Your task to perform on an android device: install app "eBay: The shopping marketplace" Image 0: 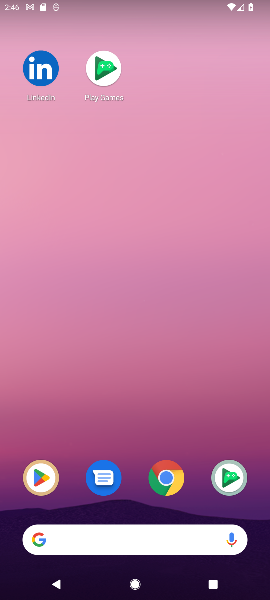
Step 0: drag from (120, 486) to (104, 255)
Your task to perform on an android device: install app "eBay: The shopping marketplace" Image 1: 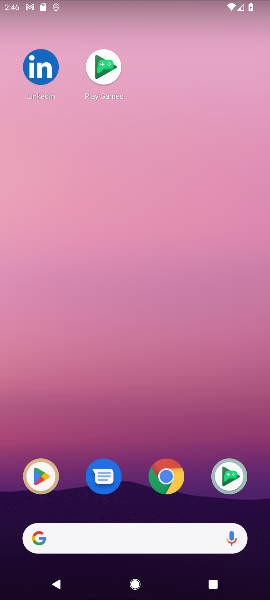
Step 1: drag from (113, 481) to (109, 253)
Your task to perform on an android device: install app "eBay: The shopping marketplace" Image 2: 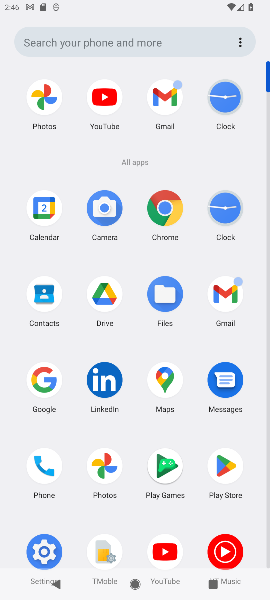
Step 2: drag from (150, 520) to (145, 318)
Your task to perform on an android device: install app "eBay: The shopping marketplace" Image 3: 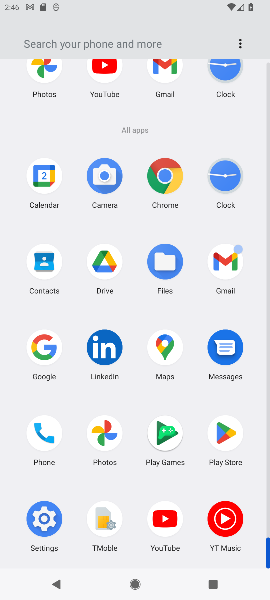
Step 3: click (225, 433)
Your task to perform on an android device: install app "eBay: The shopping marketplace" Image 4: 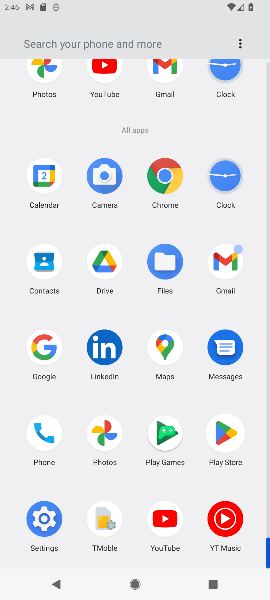
Step 4: click (225, 433)
Your task to perform on an android device: install app "eBay: The shopping marketplace" Image 5: 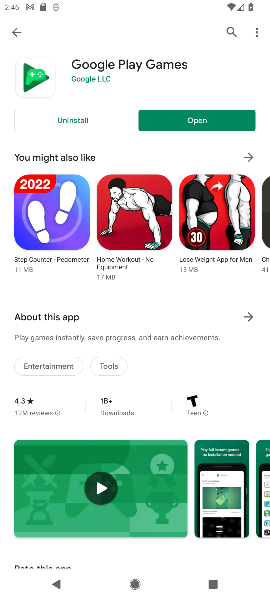
Step 5: click (225, 433)
Your task to perform on an android device: install app "eBay: The shopping marketplace" Image 6: 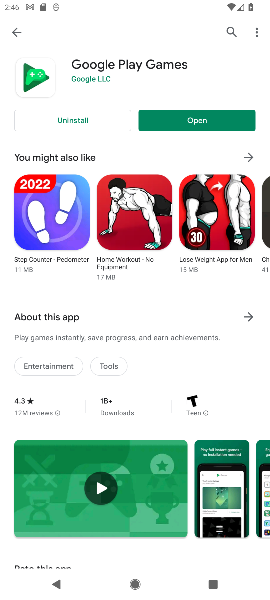
Step 6: click (226, 432)
Your task to perform on an android device: install app "eBay: The shopping marketplace" Image 7: 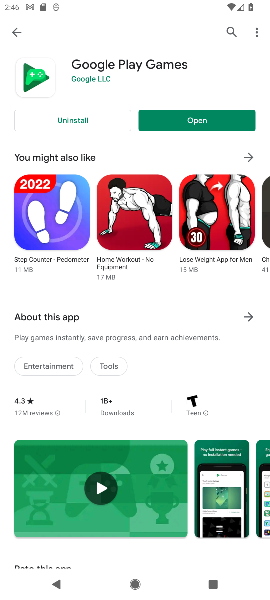
Step 7: click (22, 27)
Your task to perform on an android device: install app "eBay: The shopping marketplace" Image 8: 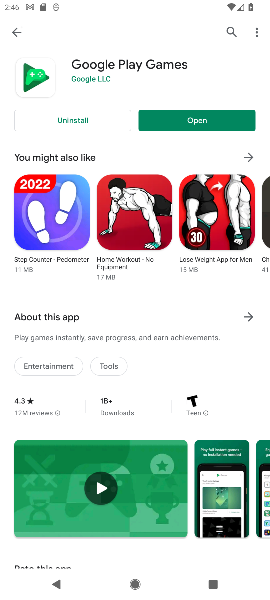
Step 8: click (20, 27)
Your task to perform on an android device: install app "eBay: The shopping marketplace" Image 9: 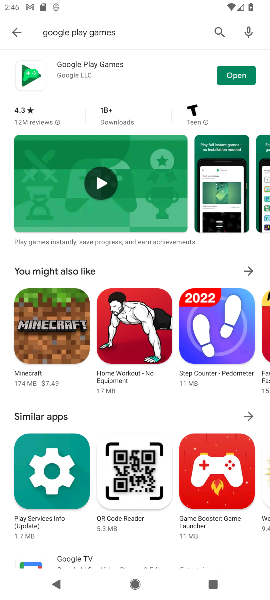
Step 9: click (51, 23)
Your task to perform on an android device: install app "eBay: The shopping marketplace" Image 10: 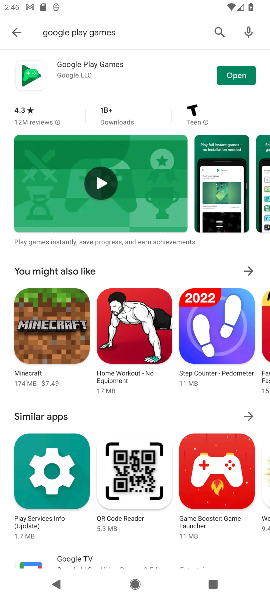
Step 10: click (55, 28)
Your task to perform on an android device: install app "eBay: The shopping marketplace" Image 11: 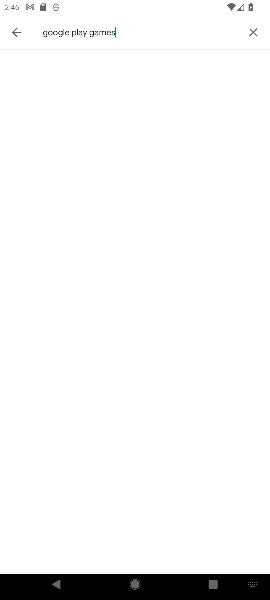
Step 11: click (55, 28)
Your task to perform on an android device: install app "eBay: The shopping marketplace" Image 12: 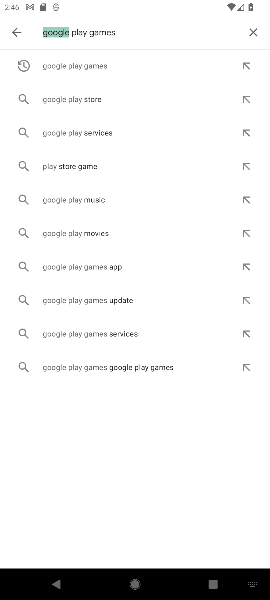
Step 12: click (55, 28)
Your task to perform on an android device: install app "eBay: The shopping marketplace" Image 13: 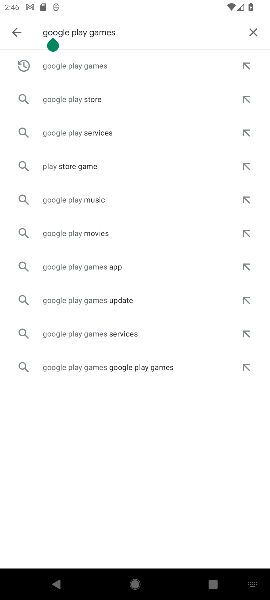
Step 13: click (251, 34)
Your task to perform on an android device: install app "eBay: The shopping marketplace" Image 14: 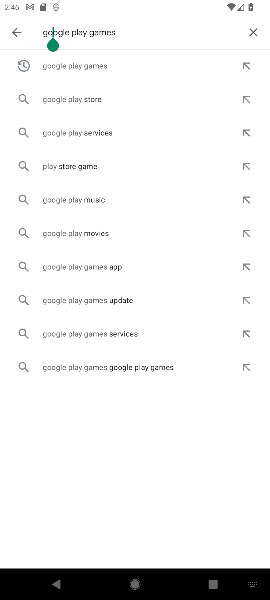
Step 14: click (250, 35)
Your task to perform on an android device: install app "eBay: The shopping marketplace" Image 15: 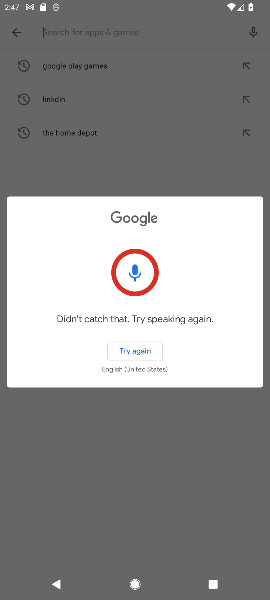
Step 15: click (153, 164)
Your task to perform on an android device: install app "eBay: The shopping marketplace" Image 16: 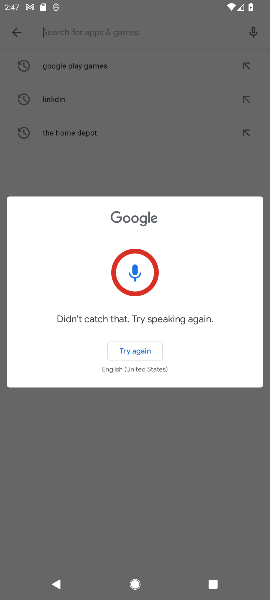
Step 16: click (153, 164)
Your task to perform on an android device: install app "eBay: The shopping marketplace" Image 17: 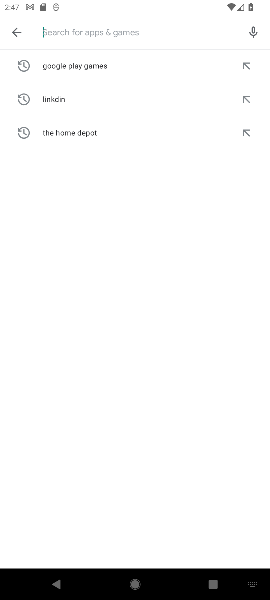
Step 17: click (154, 166)
Your task to perform on an android device: install app "eBay: The shopping marketplace" Image 18: 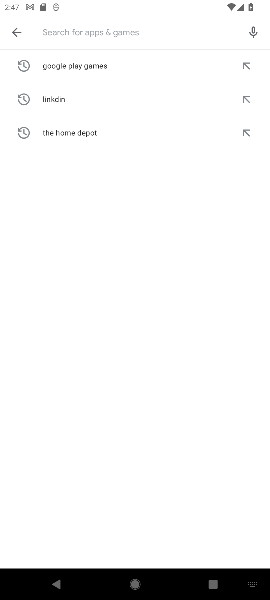
Step 18: type "ebay"
Your task to perform on an android device: install app "eBay: The shopping marketplace" Image 19: 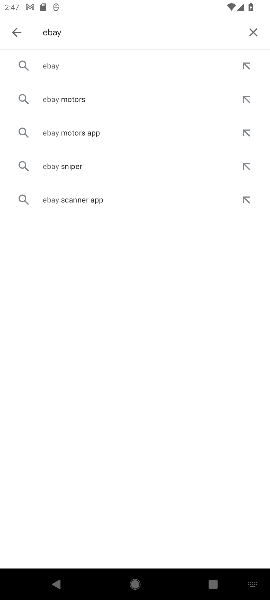
Step 19: click (42, 67)
Your task to perform on an android device: install app "eBay: The shopping marketplace" Image 20: 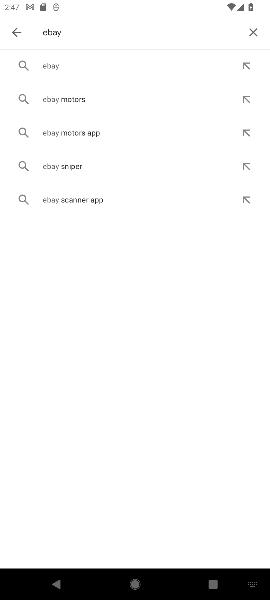
Step 20: click (42, 67)
Your task to perform on an android device: install app "eBay: The shopping marketplace" Image 21: 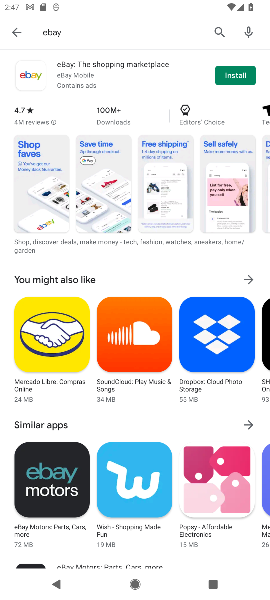
Step 21: click (229, 73)
Your task to perform on an android device: install app "eBay: The shopping marketplace" Image 22: 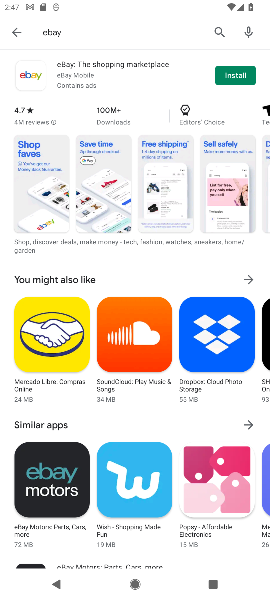
Step 22: click (229, 73)
Your task to perform on an android device: install app "eBay: The shopping marketplace" Image 23: 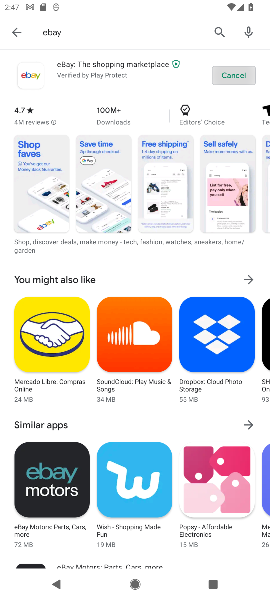
Step 23: click (229, 73)
Your task to perform on an android device: install app "eBay: The shopping marketplace" Image 24: 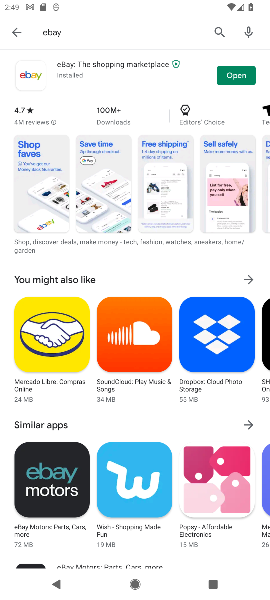
Step 24: click (247, 72)
Your task to perform on an android device: install app "eBay: The shopping marketplace" Image 25: 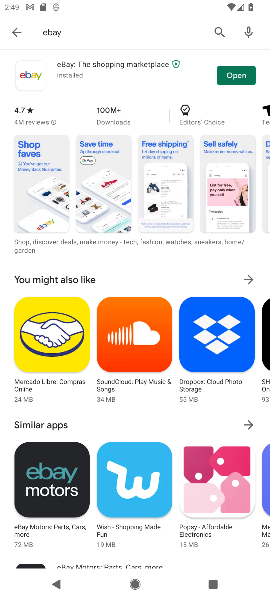
Step 25: click (248, 74)
Your task to perform on an android device: install app "eBay: The shopping marketplace" Image 26: 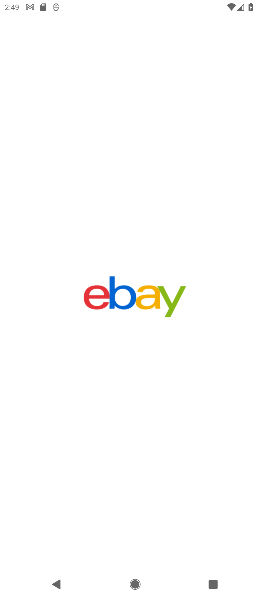
Step 26: click (249, 76)
Your task to perform on an android device: install app "eBay: The shopping marketplace" Image 27: 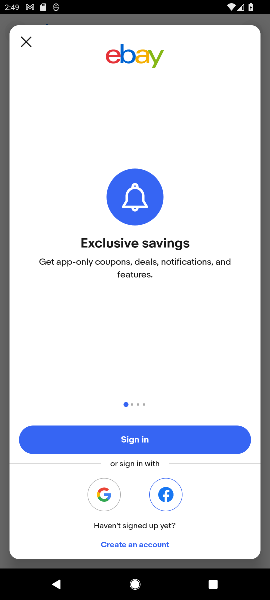
Step 27: click (27, 35)
Your task to perform on an android device: install app "eBay: The shopping marketplace" Image 28: 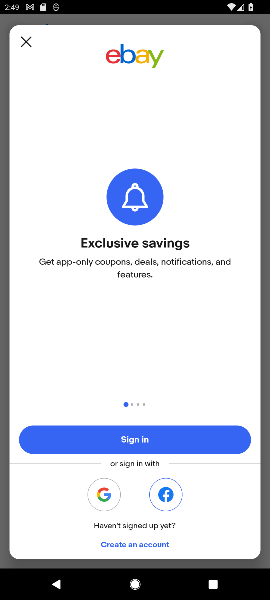
Step 28: click (26, 39)
Your task to perform on an android device: install app "eBay: The shopping marketplace" Image 29: 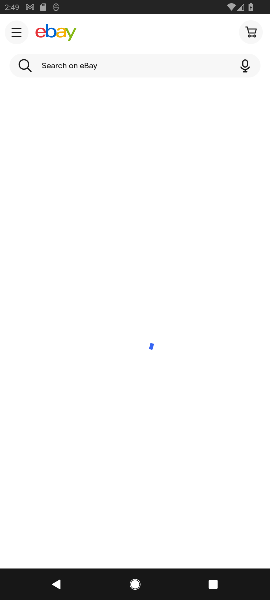
Step 29: click (26, 41)
Your task to perform on an android device: install app "eBay: The shopping marketplace" Image 30: 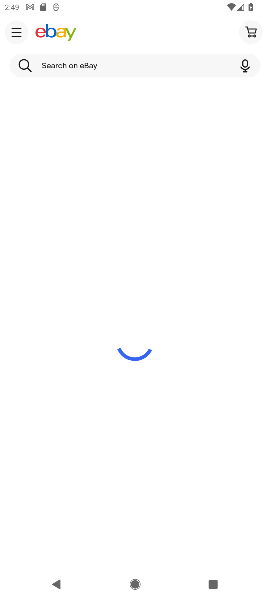
Step 30: task complete